Your task to perform on an android device: Show me popular games on the Play Store Image 0: 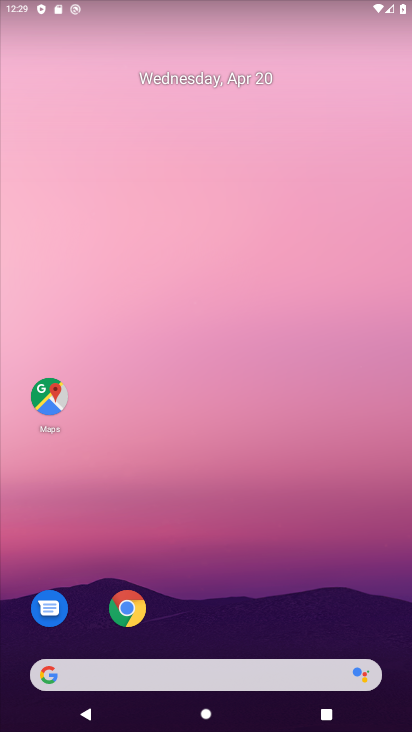
Step 0: drag from (292, 616) to (211, 145)
Your task to perform on an android device: Show me popular games on the Play Store Image 1: 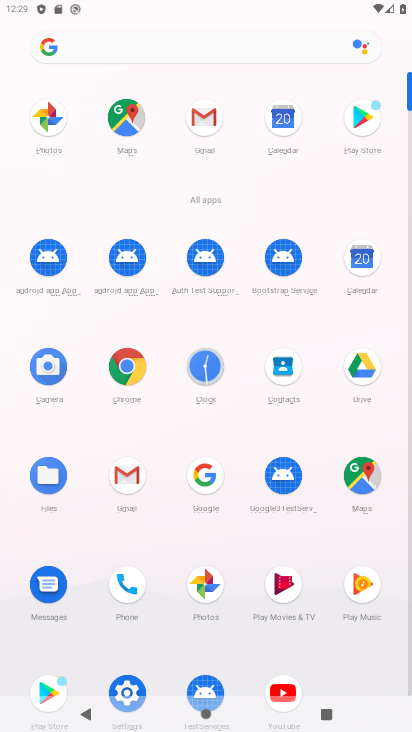
Step 1: click (368, 122)
Your task to perform on an android device: Show me popular games on the Play Store Image 2: 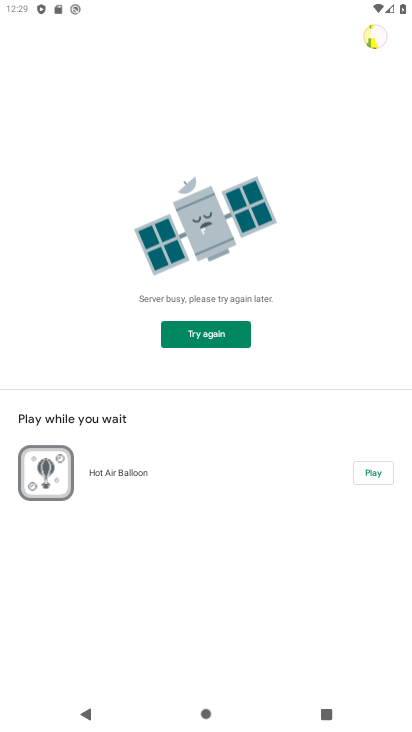
Step 2: click (205, 341)
Your task to perform on an android device: Show me popular games on the Play Store Image 3: 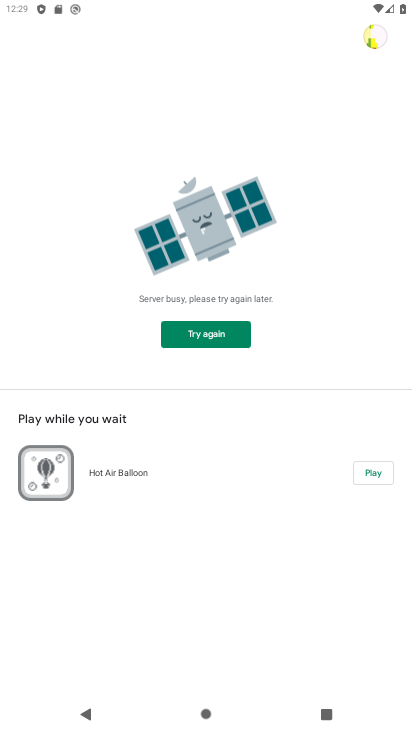
Step 3: click (205, 341)
Your task to perform on an android device: Show me popular games on the Play Store Image 4: 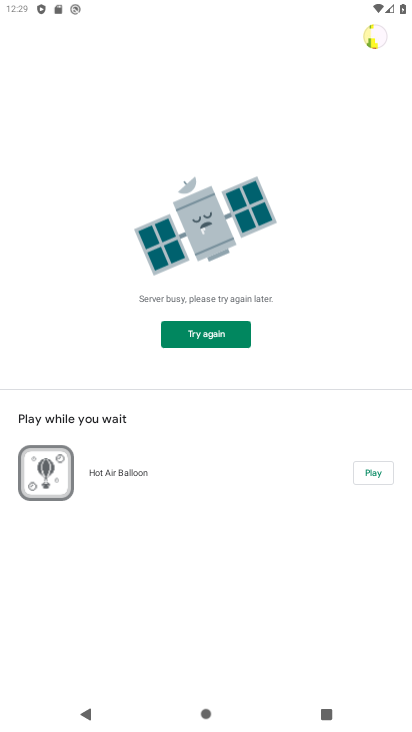
Step 4: task complete